Your task to perform on an android device: Open maps Image 0: 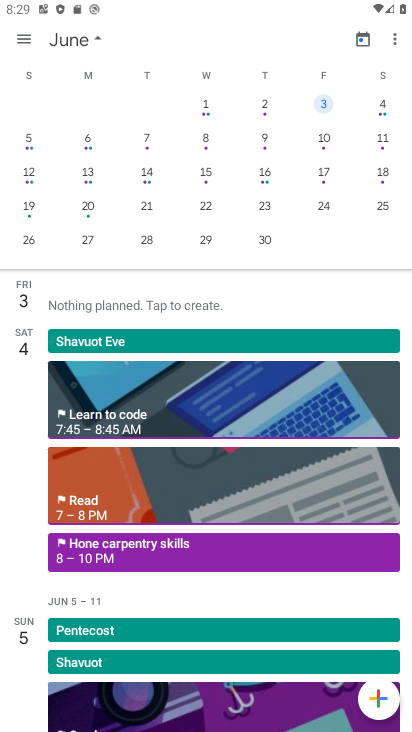
Step 0: press home button
Your task to perform on an android device: Open maps Image 1: 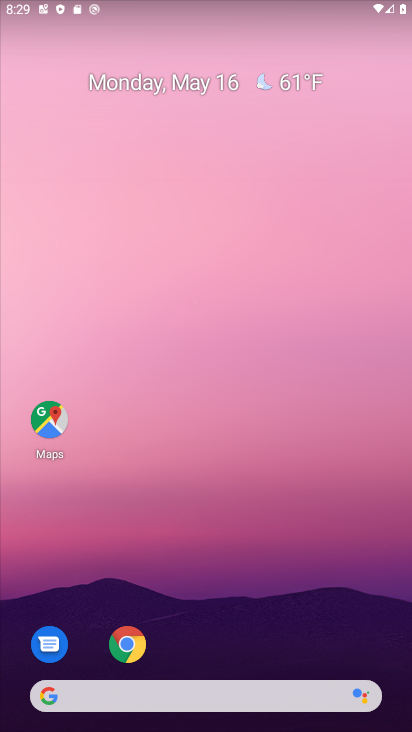
Step 1: click (46, 423)
Your task to perform on an android device: Open maps Image 2: 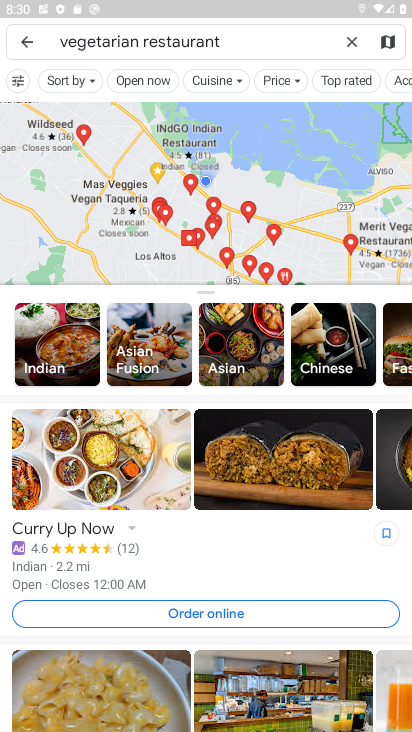
Step 2: task complete